Your task to perform on an android device: What is the recent news? Image 0: 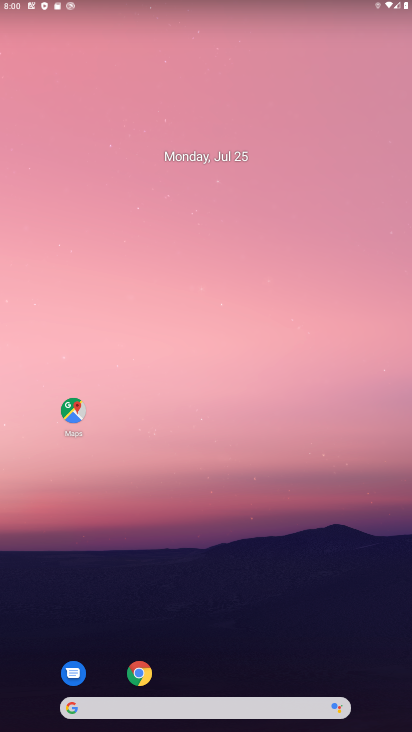
Step 0: drag from (284, 681) to (248, 450)
Your task to perform on an android device: What is the recent news? Image 1: 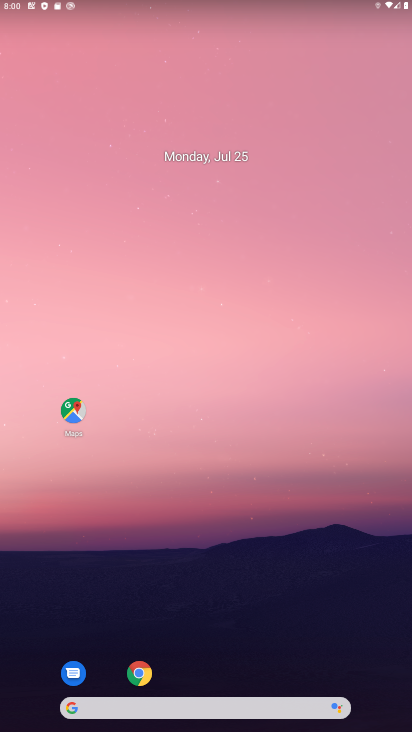
Step 1: drag from (285, 614) to (285, 383)
Your task to perform on an android device: What is the recent news? Image 2: 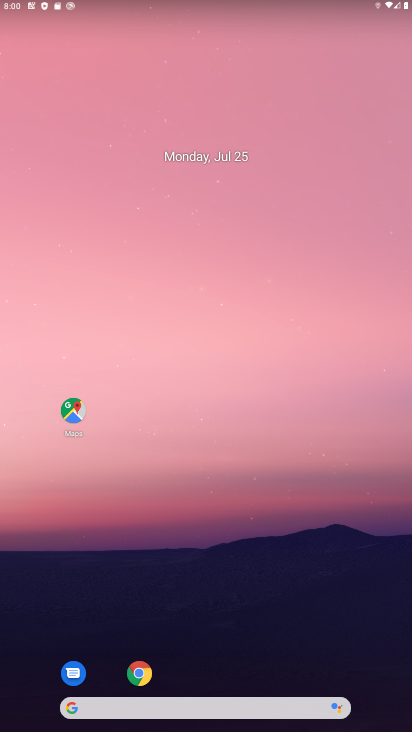
Step 2: drag from (269, 602) to (287, 494)
Your task to perform on an android device: What is the recent news? Image 3: 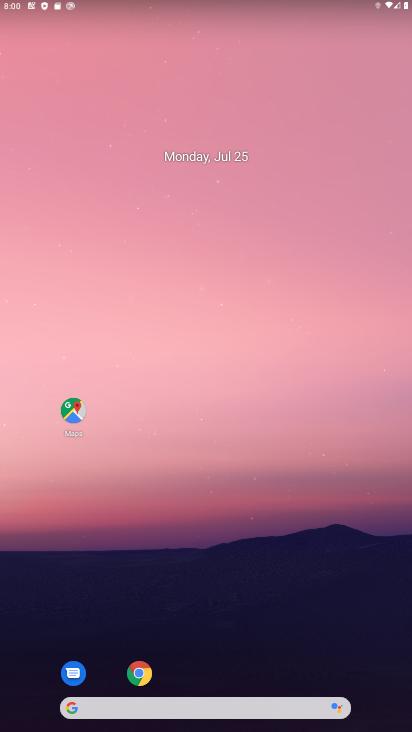
Step 3: drag from (268, 665) to (268, 466)
Your task to perform on an android device: What is the recent news? Image 4: 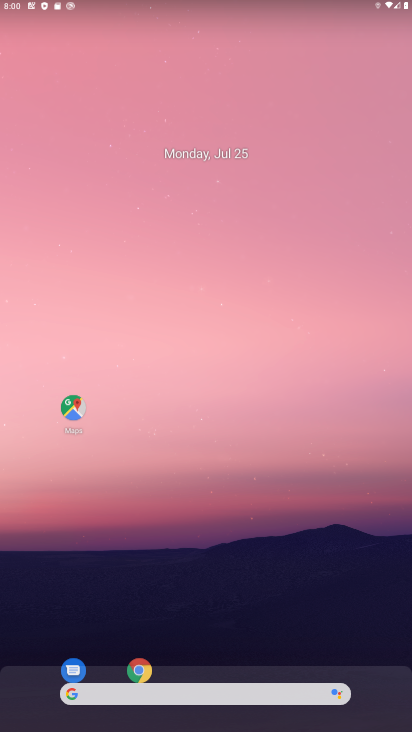
Step 4: drag from (267, 563) to (287, 68)
Your task to perform on an android device: What is the recent news? Image 5: 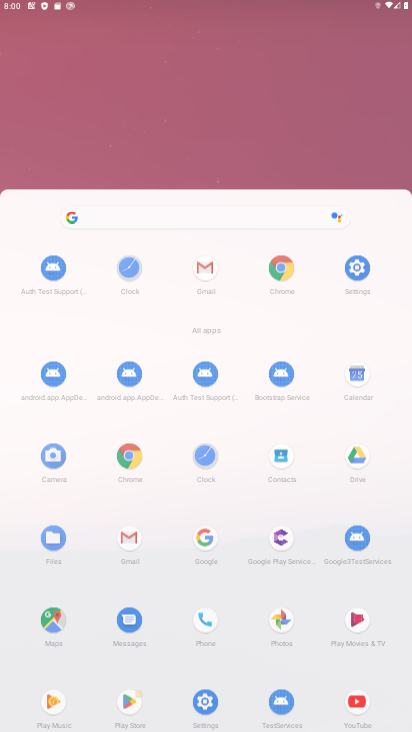
Step 5: drag from (245, 558) to (248, 117)
Your task to perform on an android device: What is the recent news? Image 6: 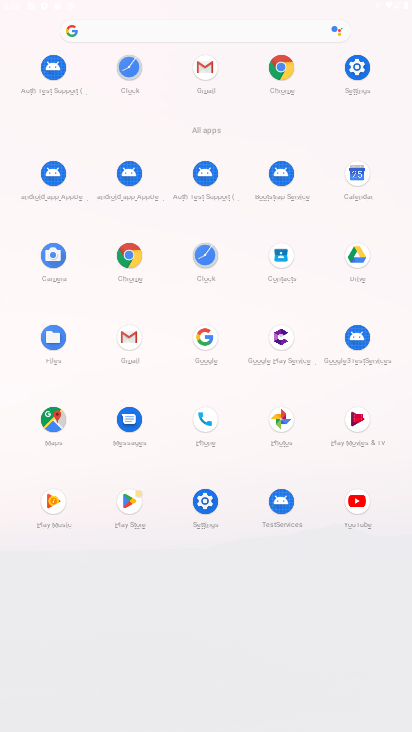
Step 6: drag from (196, 535) to (218, 16)
Your task to perform on an android device: What is the recent news? Image 7: 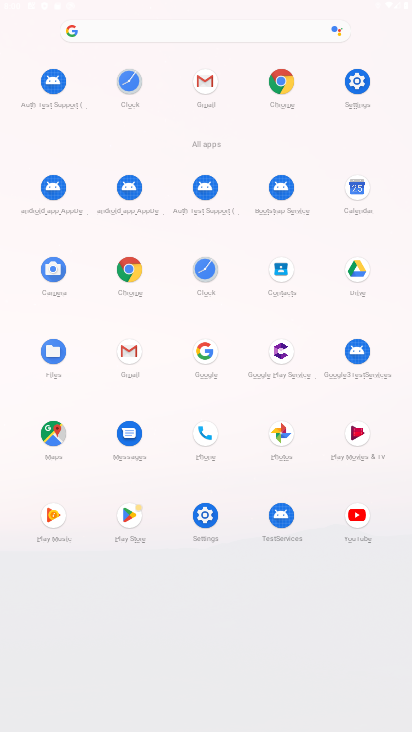
Step 7: click (276, 82)
Your task to perform on an android device: What is the recent news? Image 8: 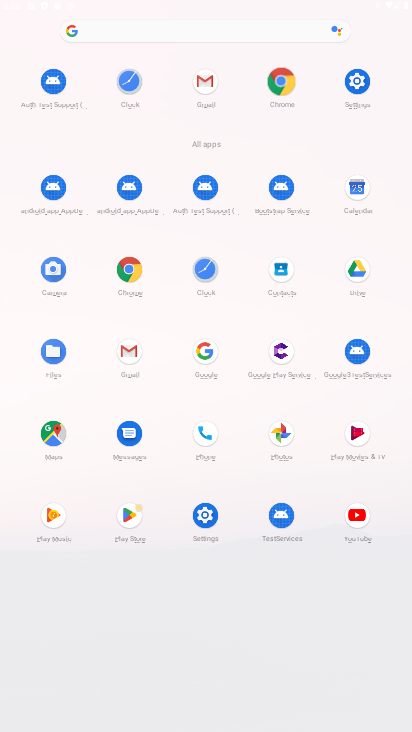
Step 8: click (277, 83)
Your task to perform on an android device: What is the recent news? Image 9: 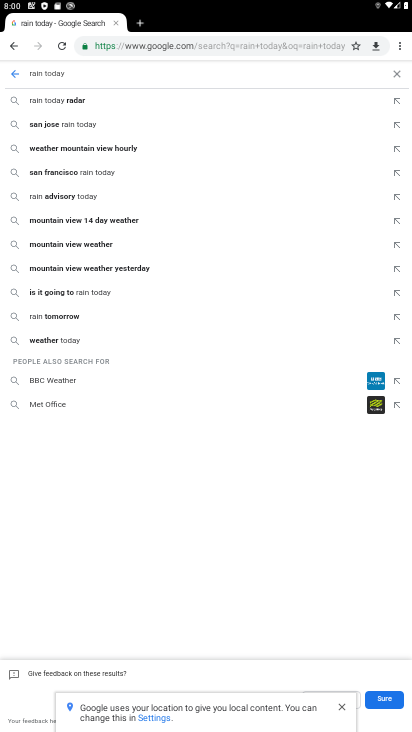
Step 9: click (12, 39)
Your task to perform on an android device: What is the recent news? Image 10: 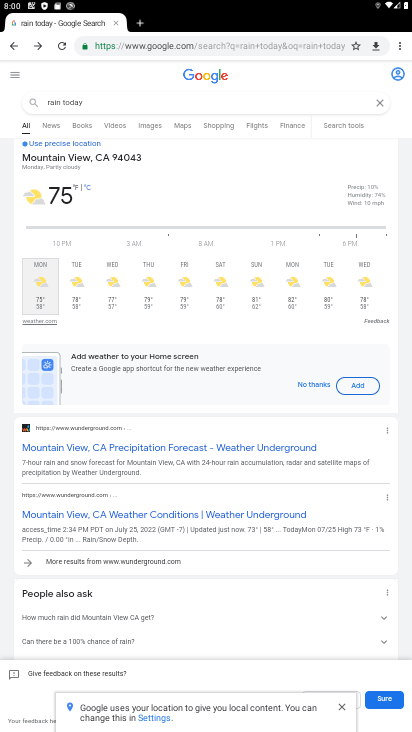
Step 10: task complete